Your task to perform on an android device: Go to settings Image 0: 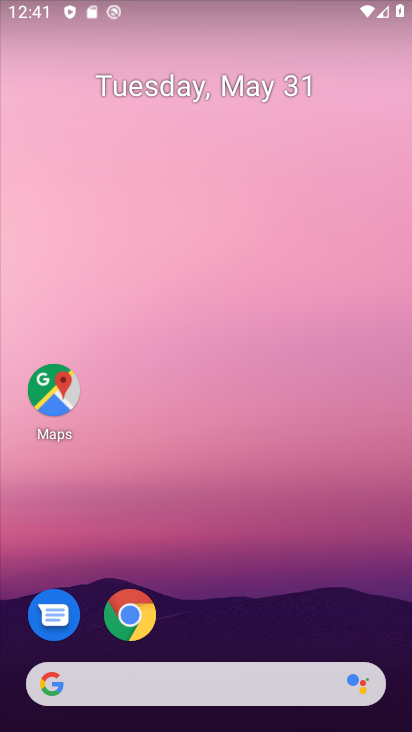
Step 0: drag from (337, 532) to (282, 197)
Your task to perform on an android device: Go to settings Image 1: 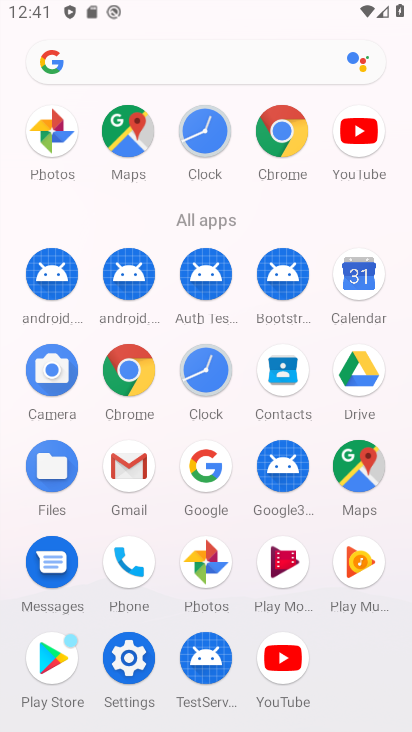
Step 1: drag from (233, 527) to (230, 295)
Your task to perform on an android device: Go to settings Image 2: 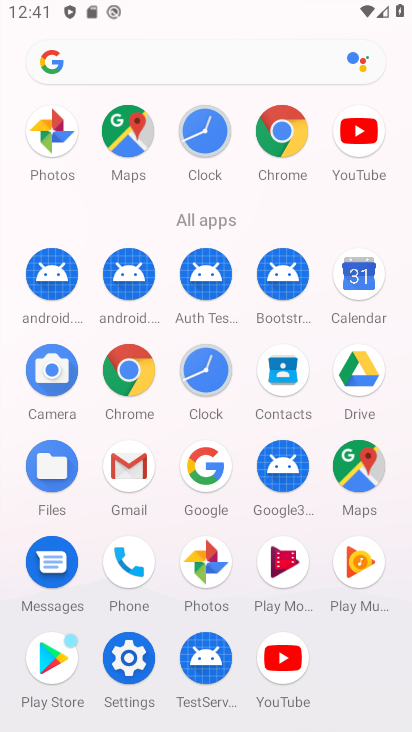
Step 2: click (127, 659)
Your task to perform on an android device: Go to settings Image 3: 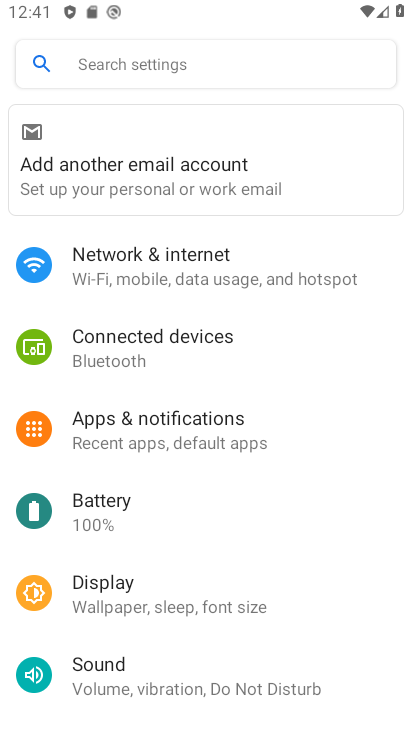
Step 3: task complete